Your task to perform on an android device: Go to Yahoo.com Image 0: 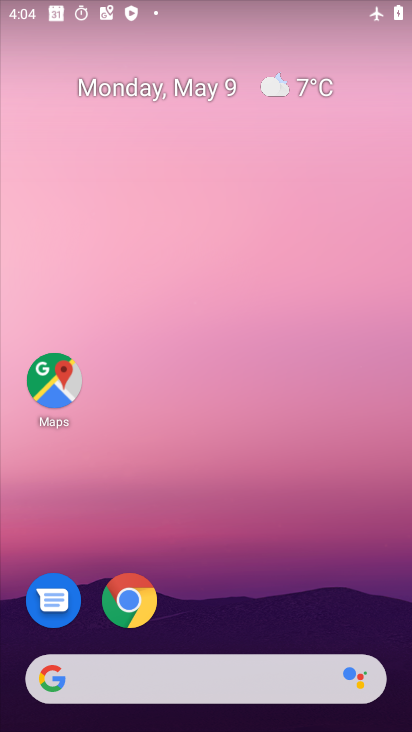
Step 0: click (129, 599)
Your task to perform on an android device: Go to Yahoo.com Image 1: 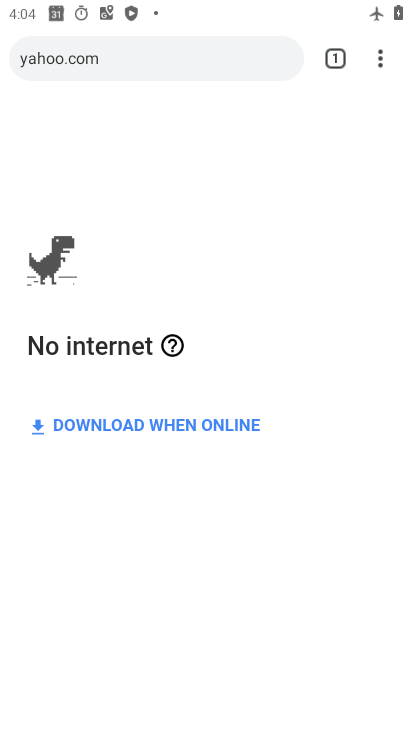
Step 1: task complete